Your task to perform on an android device: change notifications settings Image 0: 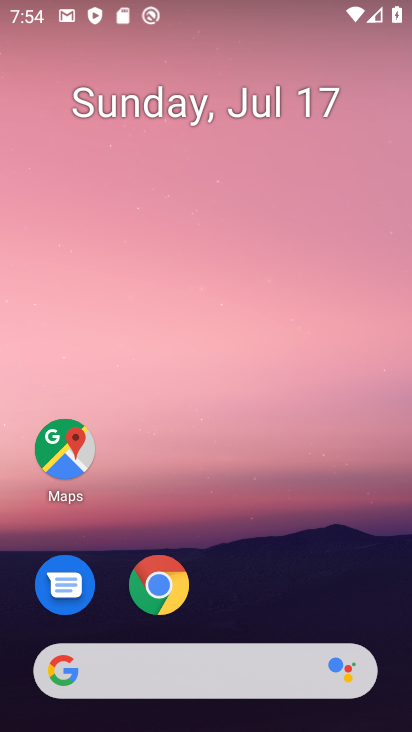
Step 0: drag from (205, 669) to (309, 74)
Your task to perform on an android device: change notifications settings Image 1: 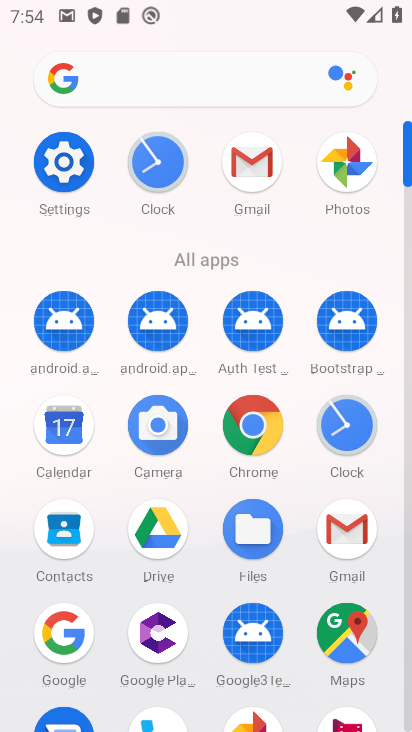
Step 1: click (56, 148)
Your task to perform on an android device: change notifications settings Image 2: 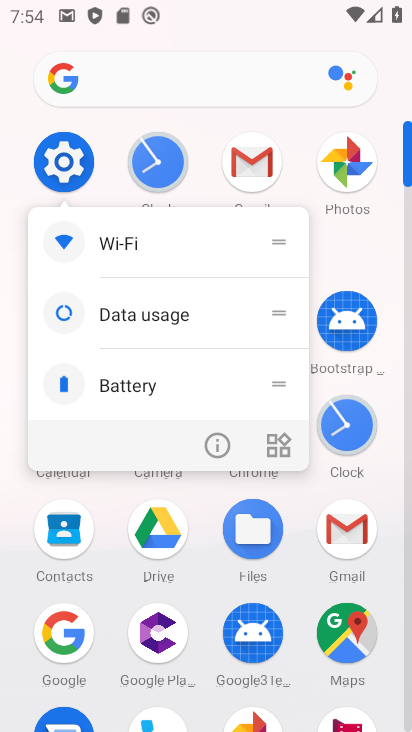
Step 2: click (66, 160)
Your task to perform on an android device: change notifications settings Image 3: 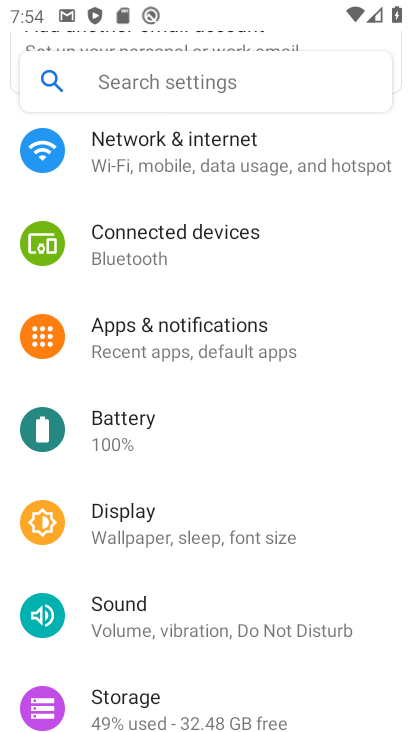
Step 3: click (217, 337)
Your task to perform on an android device: change notifications settings Image 4: 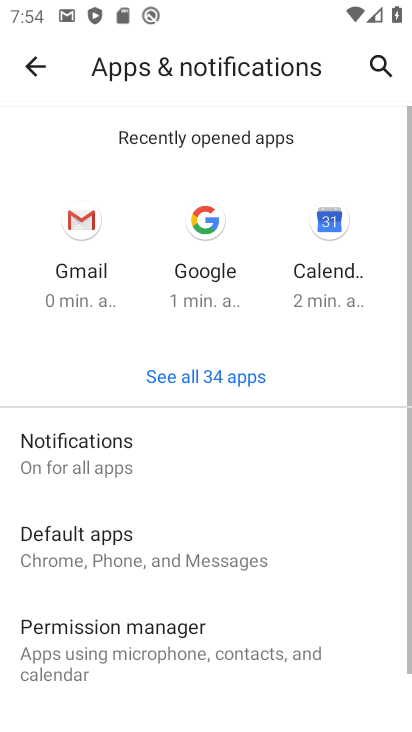
Step 4: click (91, 468)
Your task to perform on an android device: change notifications settings Image 5: 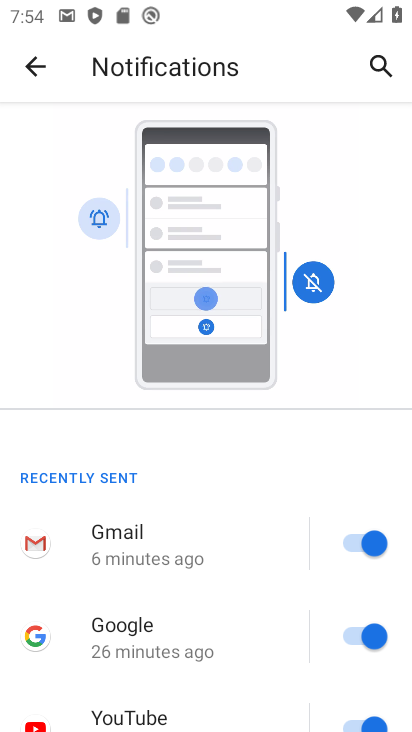
Step 5: drag from (234, 555) to (340, 268)
Your task to perform on an android device: change notifications settings Image 6: 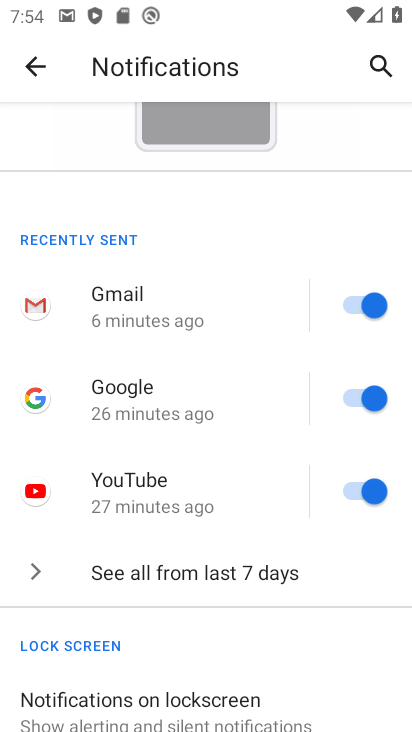
Step 6: click (349, 484)
Your task to perform on an android device: change notifications settings Image 7: 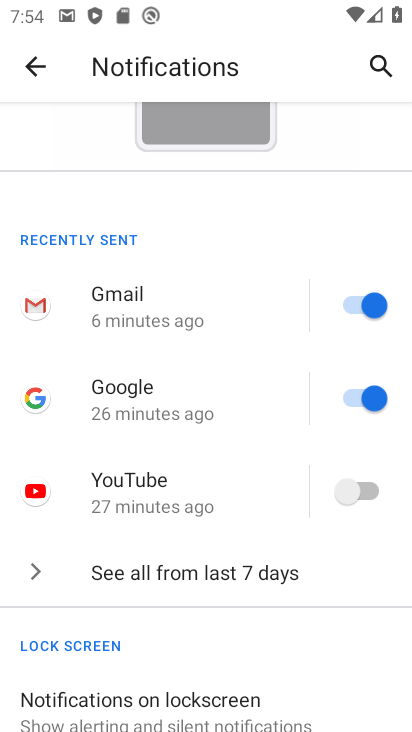
Step 7: task complete